Your task to perform on an android device: Show me productivity apps on the Play Store Image 0: 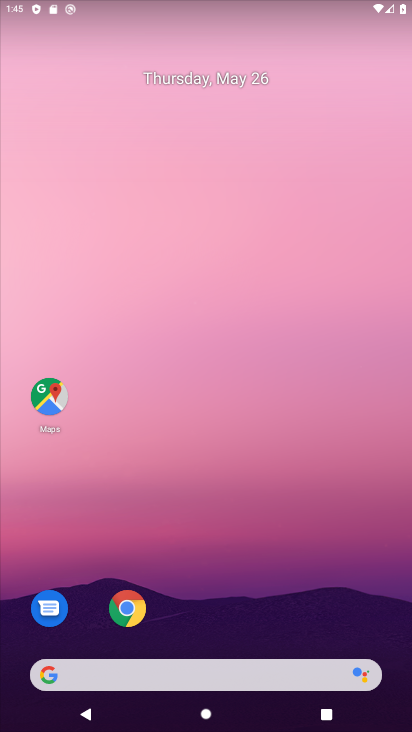
Step 0: drag from (305, 636) to (202, 62)
Your task to perform on an android device: Show me productivity apps on the Play Store Image 1: 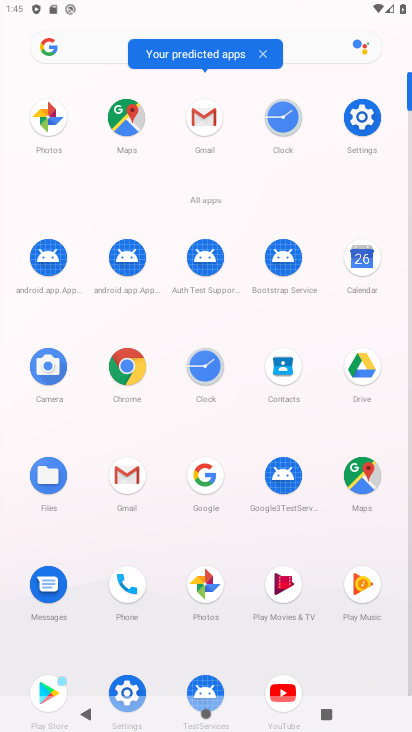
Step 1: drag from (376, 660) to (332, 273)
Your task to perform on an android device: Show me productivity apps on the Play Store Image 2: 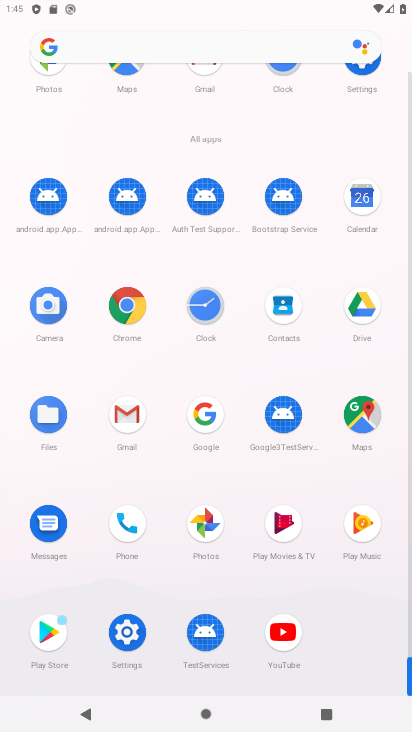
Step 2: click (37, 620)
Your task to perform on an android device: Show me productivity apps on the Play Store Image 3: 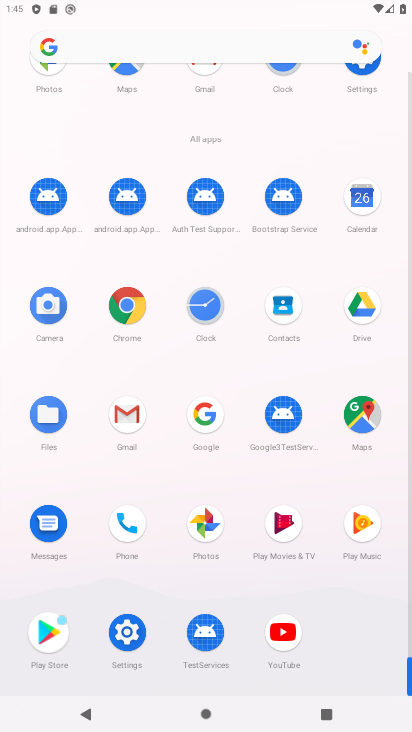
Step 3: click (50, 632)
Your task to perform on an android device: Show me productivity apps on the Play Store Image 4: 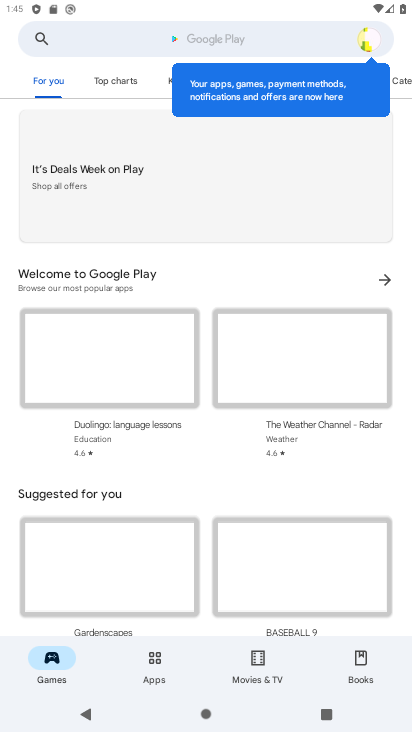
Step 4: click (109, 29)
Your task to perform on an android device: Show me productivity apps on the Play Store Image 5: 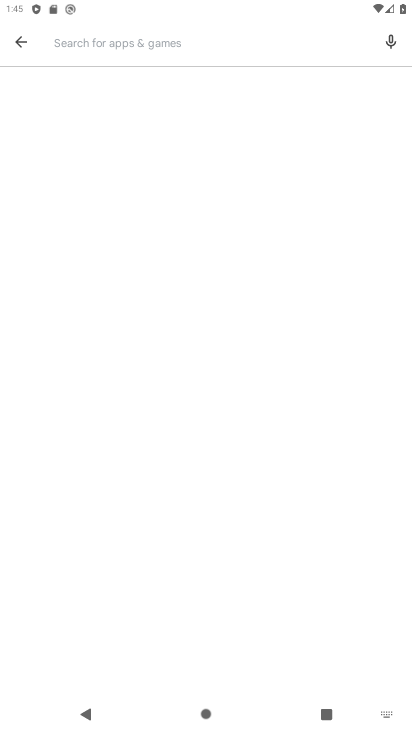
Step 5: click (112, 42)
Your task to perform on an android device: Show me productivity apps on the Play Store Image 6: 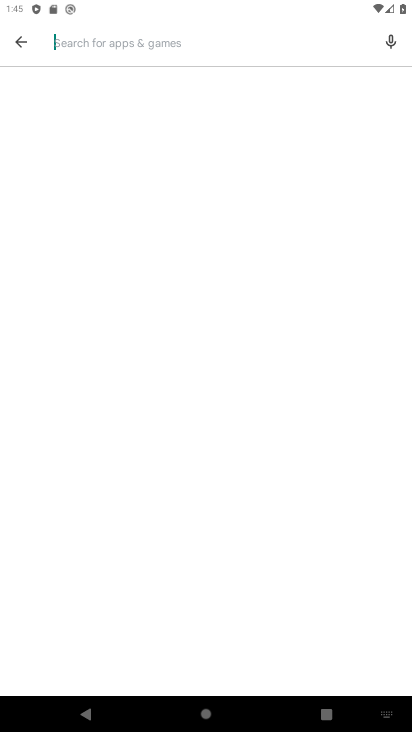
Step 6: type "productivity apps"
Your task to perform on an android device: Show me productivity apps on the Play Store Image 7: 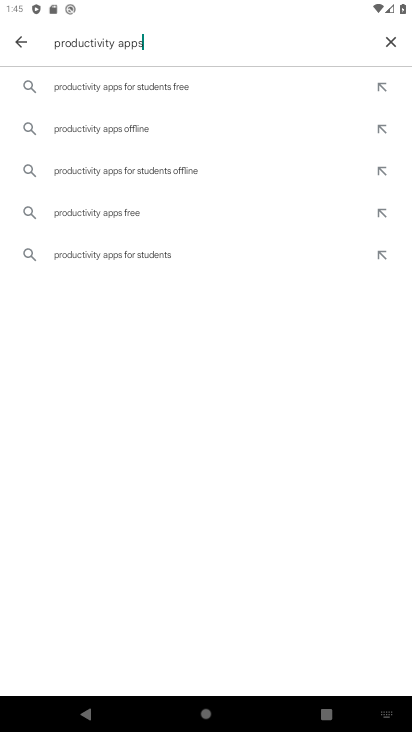
Step 7: press enter
Your task to perform on an android device: Show me productivity apps on the Play Store Image 8: 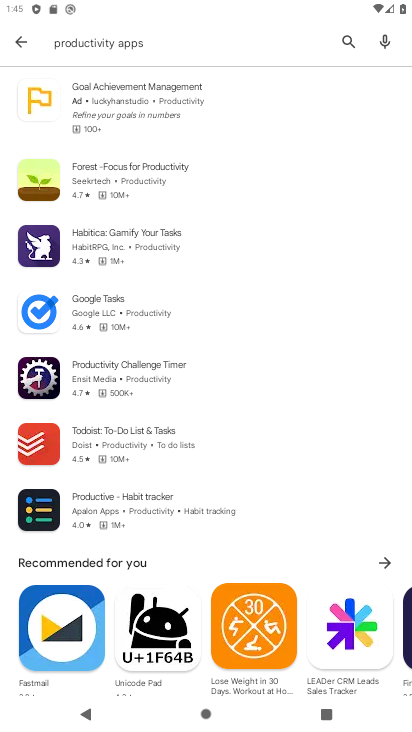
Step 8: task complete